Your task to perform on an android device: Open display settings Image 0: 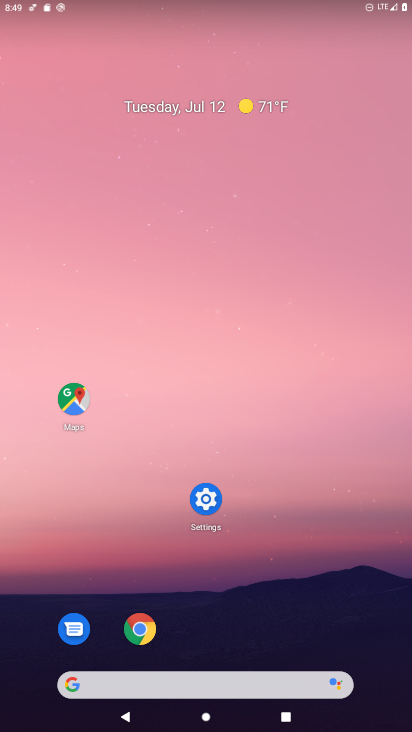
Step 0: click (207, 506)
Your task to perform on an android device: Open display settings Image 1: 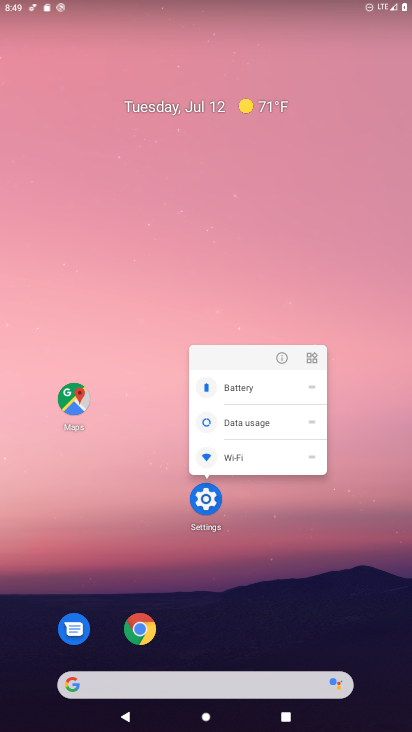
Step 1: click (207, 506)
Your task to perform on an android device: Open display settings Image 2: 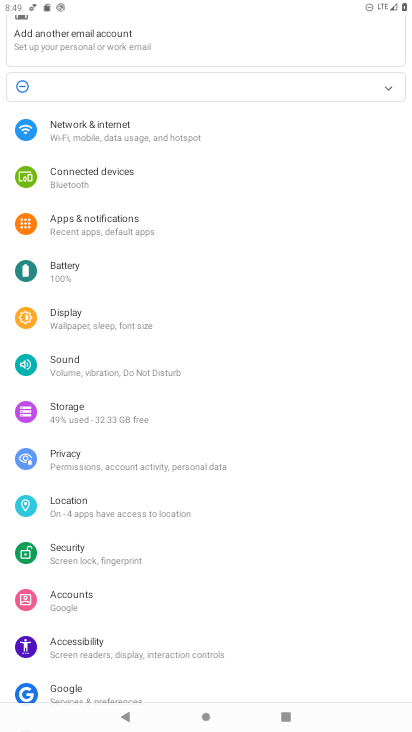
Step 2: click (59, 315)
Your task to perform on an android device: Open display settings Image 3: 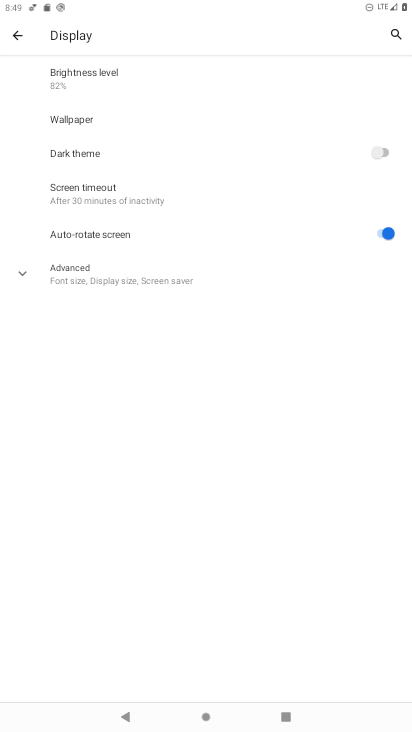
Step 3: click (25, 272)
Your task to perform on an android device: Open display settings Image 4: 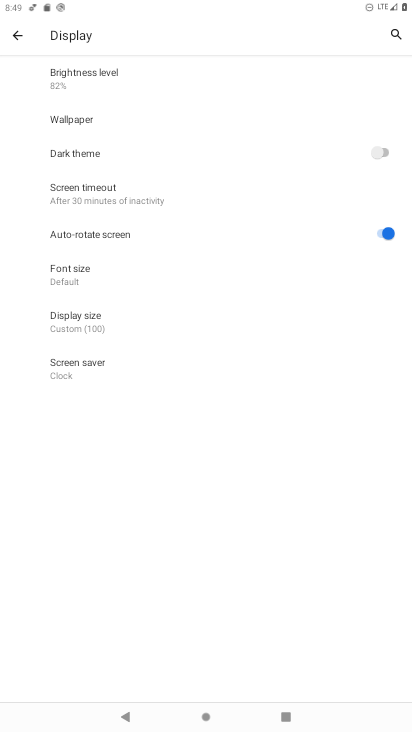
Step 4: task complete